Your task to perform on an android device: Go to Wikipedia Image 0: 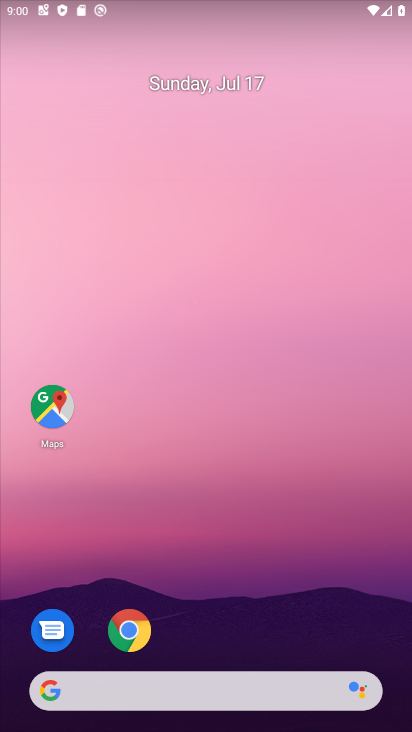
Step 0: drag from (342, 626) to (315, 127)
Your task to perform on an android device: Go to Wikipedia Image 1: 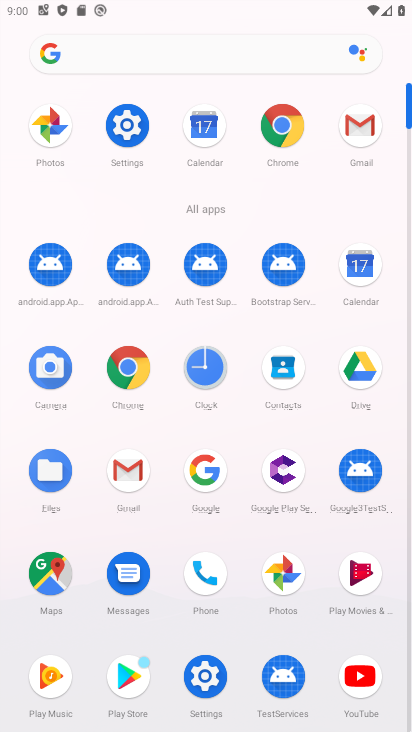
Step 1: click (125, 373)
Your task to perform on an android device: Go to Wikipedia Image 2: 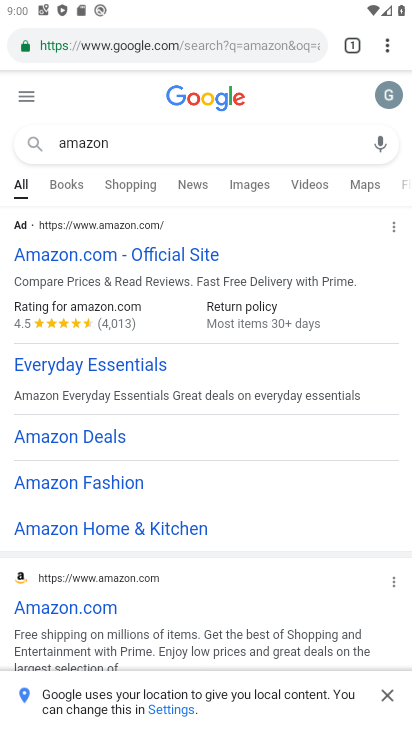
Step 2: click (251, 46)
Your task to perform on an android device: Go to Wikipedia Image 3: 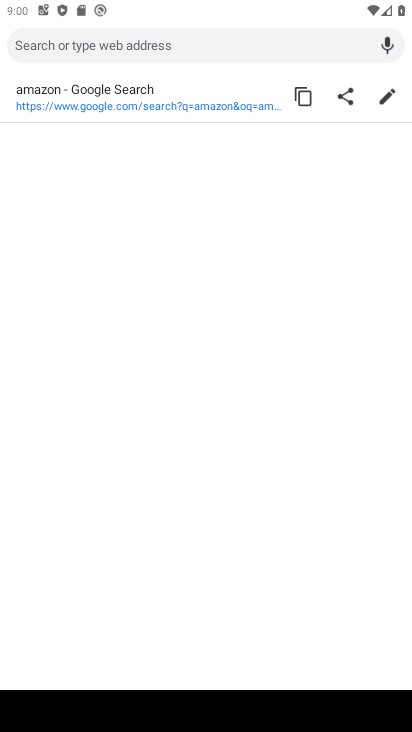
Step 3: type "wikipedia"
Your task to perform on an android device: Go to Wikipedia Image 4: 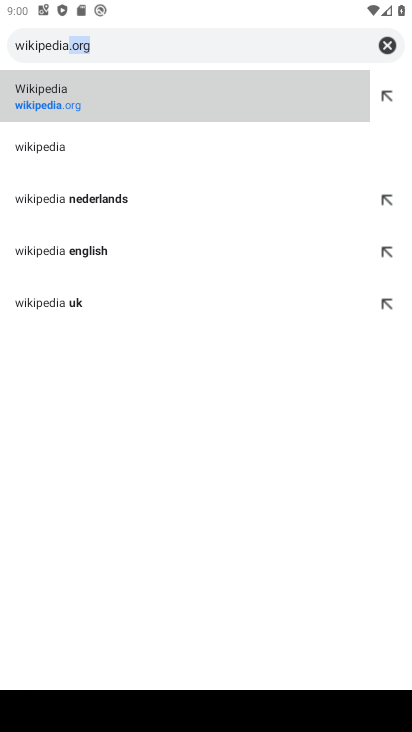
Step 4: click (273, 100)
Your task to perform on an android device: Go to Wikipedia Image 5: 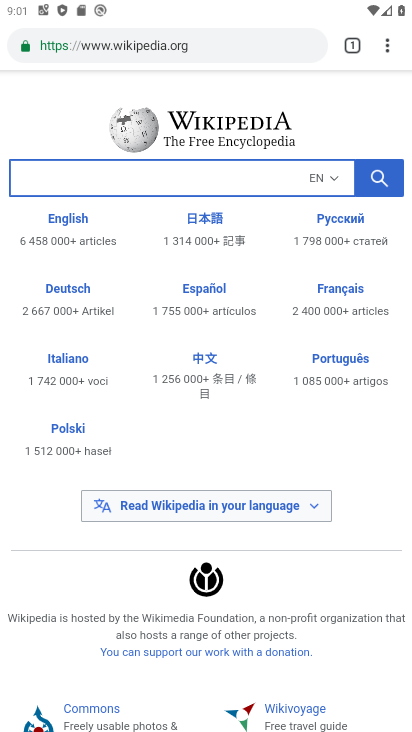
Step 5: task complete